Your task to perform on an android device: add a contact in the contacts app Image 0: 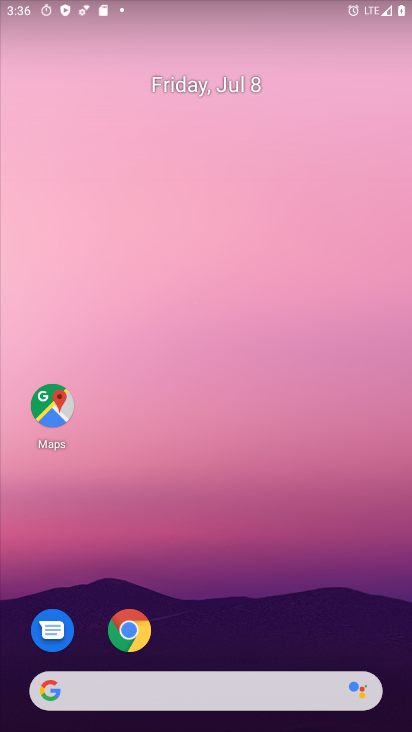
Step 0: drag from (267, 368) to (244, 215)
Your task to perform on an android device: add a contact in the contacts app Image 1: 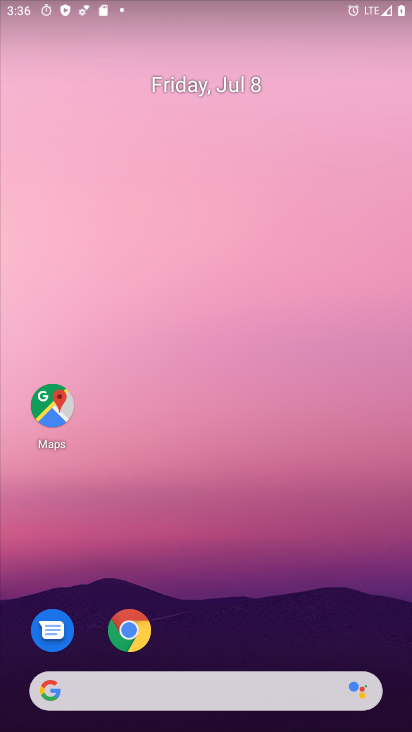
Step 1: drag from (256, 433) to (240, 108)
Your task to perform on an android device: add a contact in the contacts app Image 2: 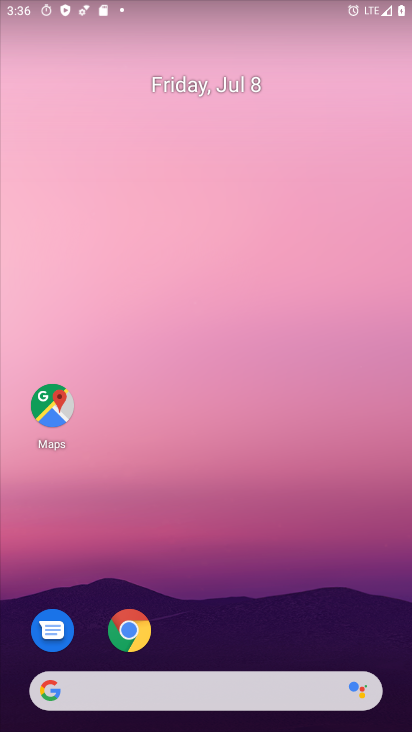
Step 2: drag from (232, 507) to (259, 179)
Your task to perform on an android device: add a contact in the contacts app Image 3: 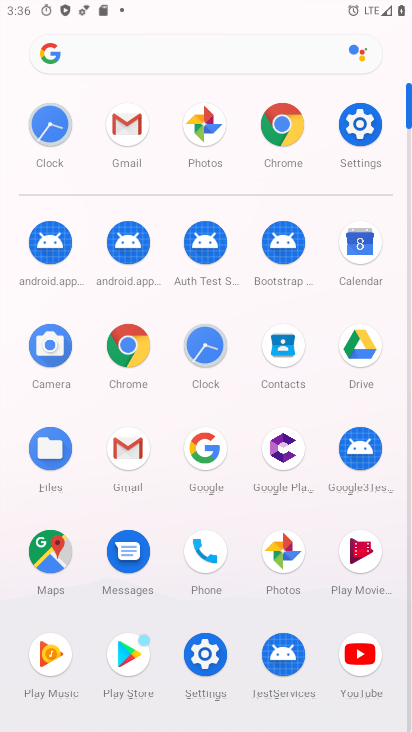
Step 3: click (285, 351)
Your task to perform on an android device: add a contact in the contacts app Image 4: 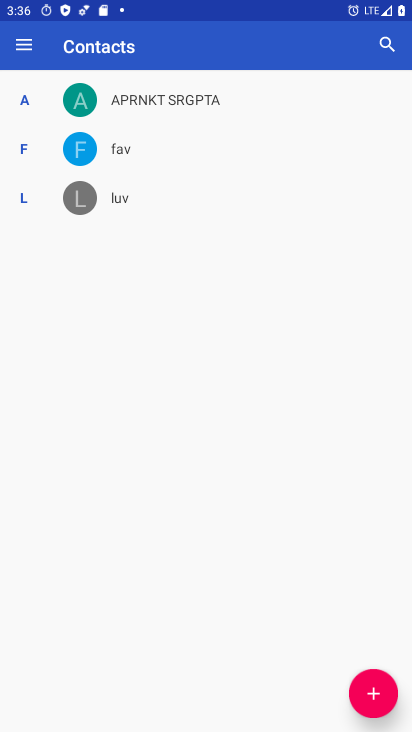
Step 4: click (371, 693)
Your task to perform on an android device: add a contact in the contacts app Image 5: 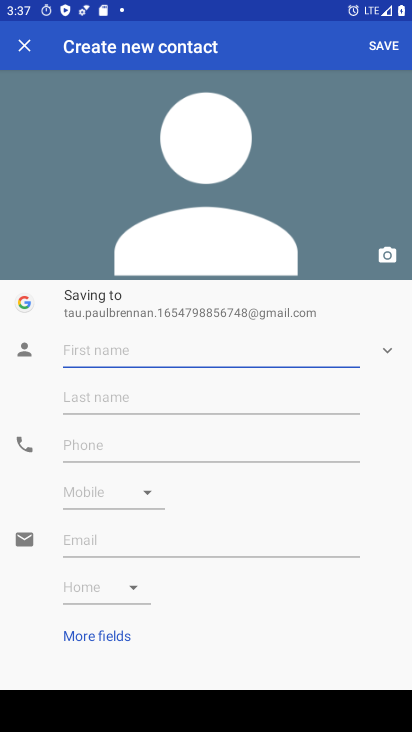
Step 5: type "zscx"
Your task to perform on an android device: add a contact in the contacts app Image 6: 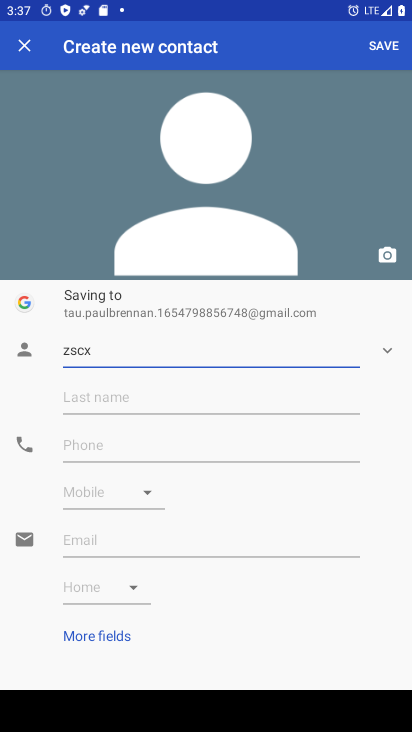
Step 6: click (191, 451)
Your task to perform on an android device: add a contact in the contacts app Image 7: 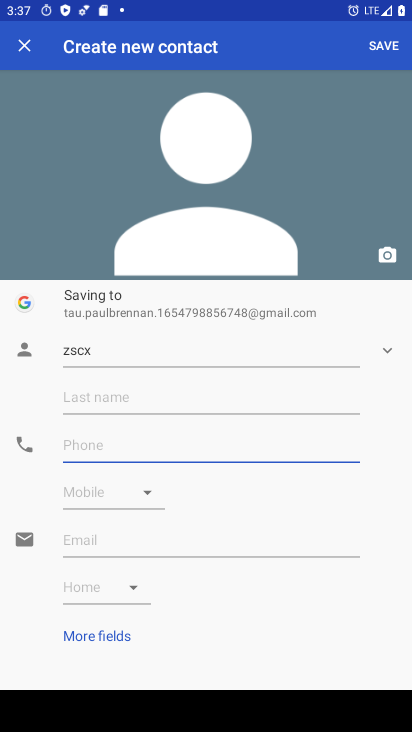
Step 7: type "436547"
Your task to perform on an android device: add a contact in the contacts app Image 8: 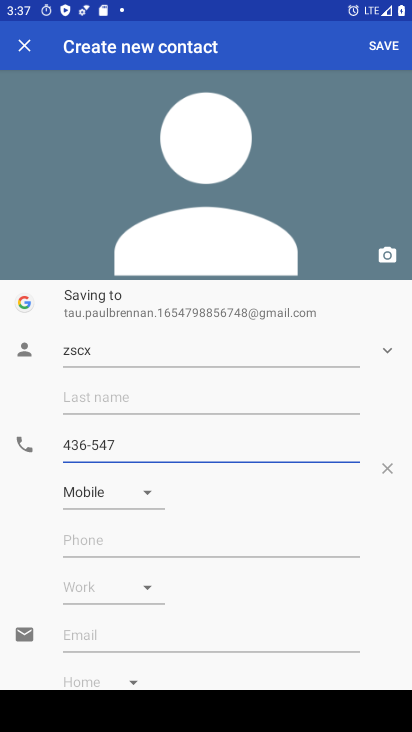
Step 8: click (394, 47)
Your task to perform on an android device: add a contact in the contacts app Image 9: 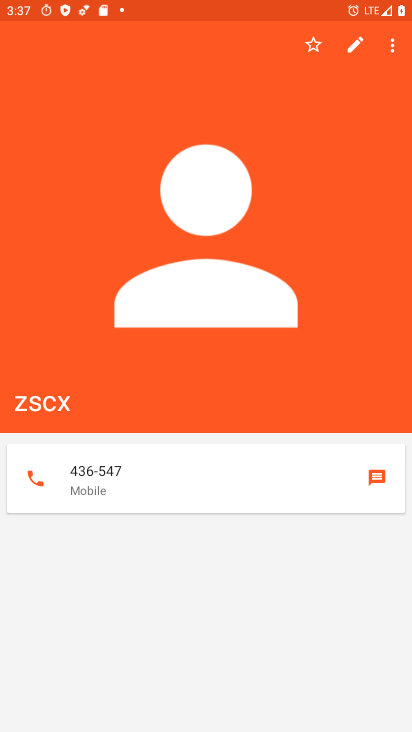
Step 9: task complete